Your task to perform on an android device: Open Reddit.com Image 0: 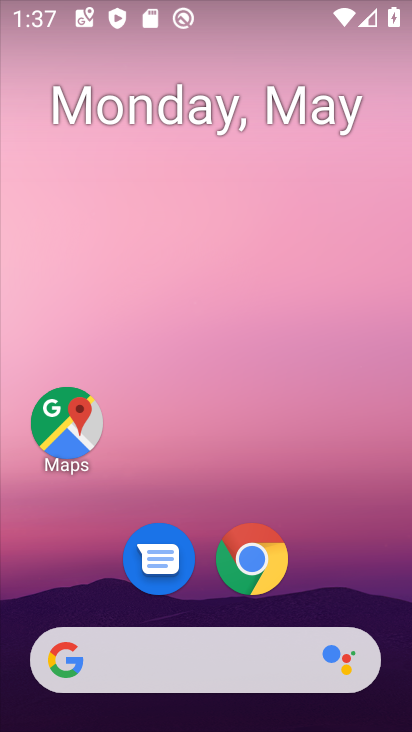
Step 0: type "Reddit.com"
Your task to perform on an android device: Open Reddit.com Image 1: 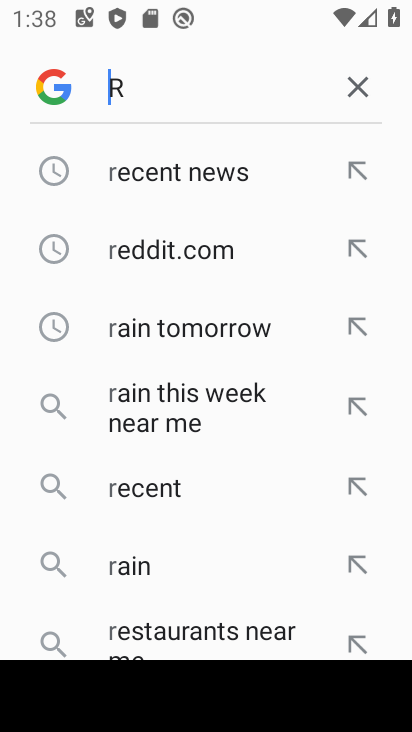
Step 1: click (360, 86)
Your task to perform on an android device: Open Reddit.com Image 2: 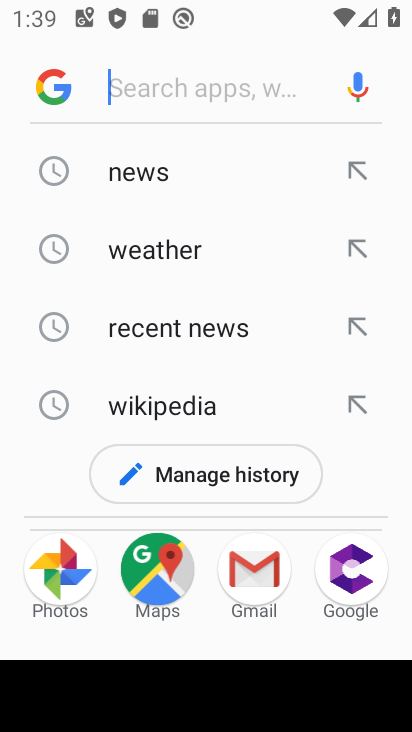
Step 2: type "Reddit.com"
Your task to perform on an android device: Open Reddit.com Image 3: 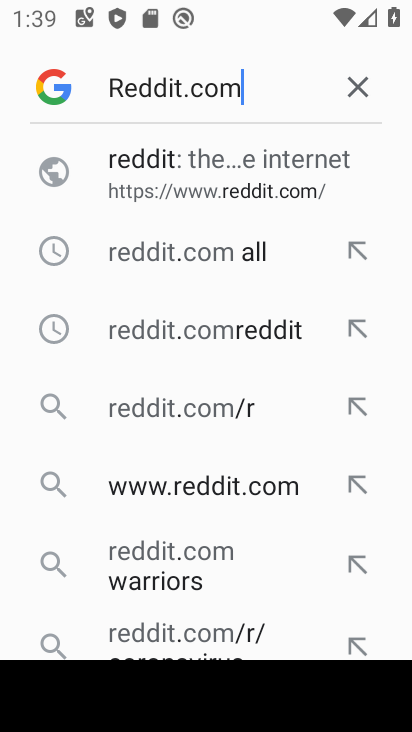
Step 3: click (150, 91)
Your task to perform on an android device: Open Reddit.com Image 4: 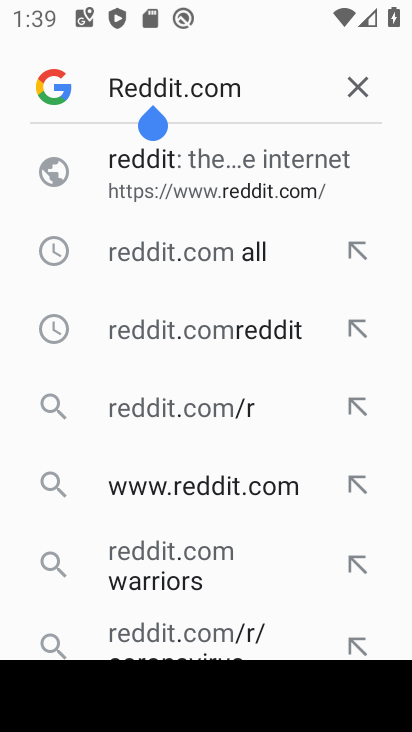
Step 4: click (173, 192)
Your task to perform on an android device: Open Reddit.com Image 5: 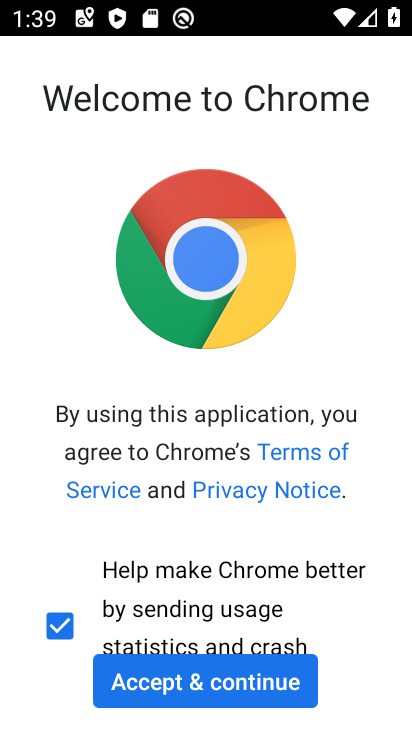
Step 5: click (177, 694)
Your task to perform on an android device: Open Reddit.com Image 6: 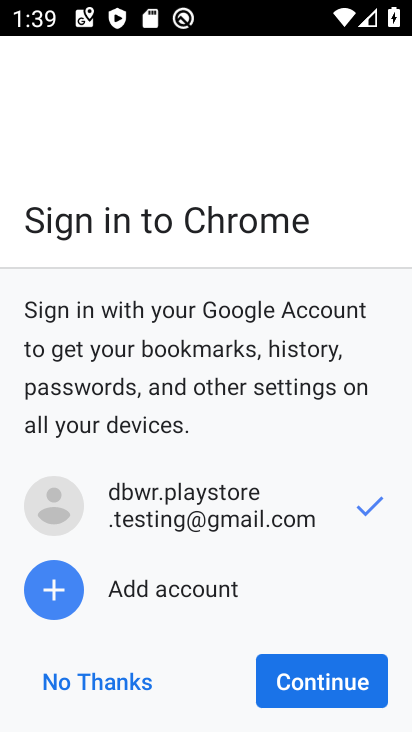
Step 6: click (174, 676)
Your task to perform on an android device: Open Reddit.com Image 7: 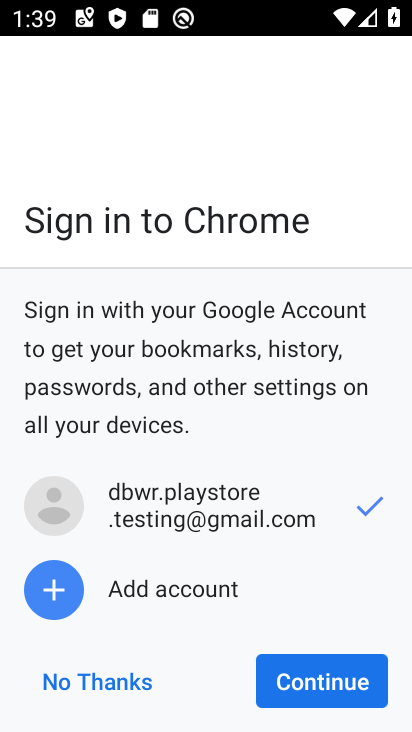
Step 7: click (272, 691)
Your task to perform on an android device: Open Reddit.com Image 8: 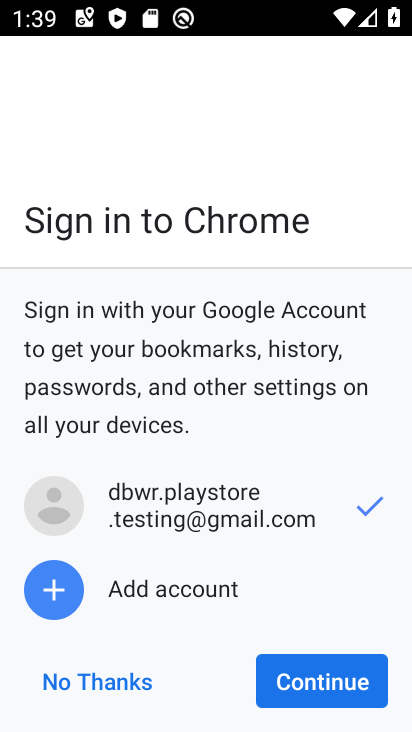
Step 8: click (272, 691)
Your task to perform on an android device: Open Reddit.com Image 9: 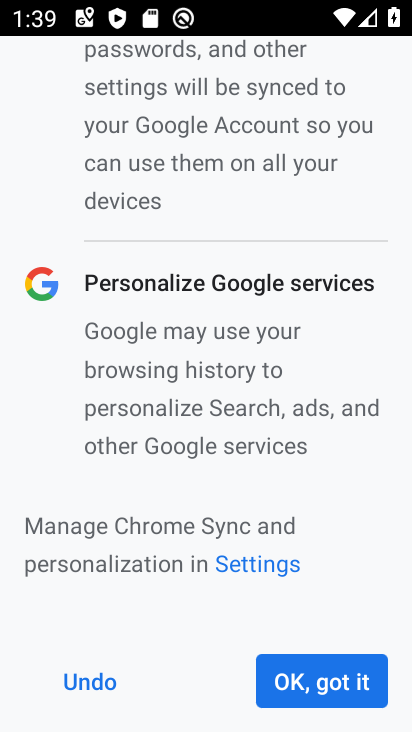
Step 9: click (272, 691)
Your task to perform on an android device: Open Reddit.com Image 10: 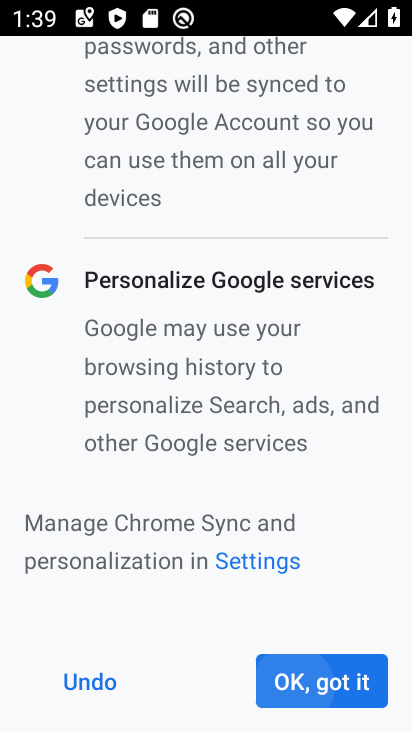
Step 10: click (272, 691)
Your task to perform on an android device: Open Reddit.com Image 11: 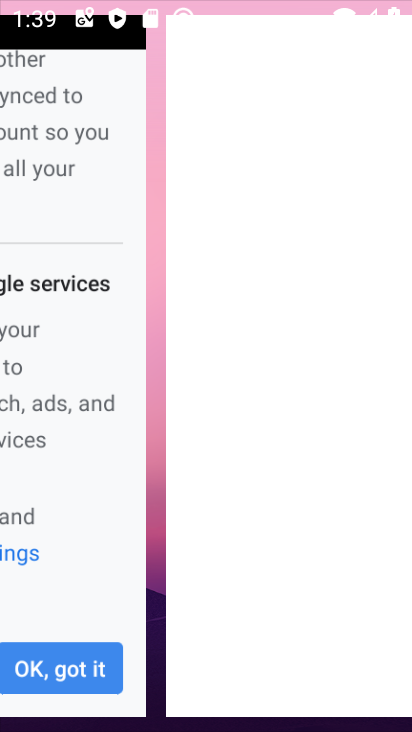
Step 11: click (272, 691)
Your task to perform on an android device: Open Reddit.com Image 12: 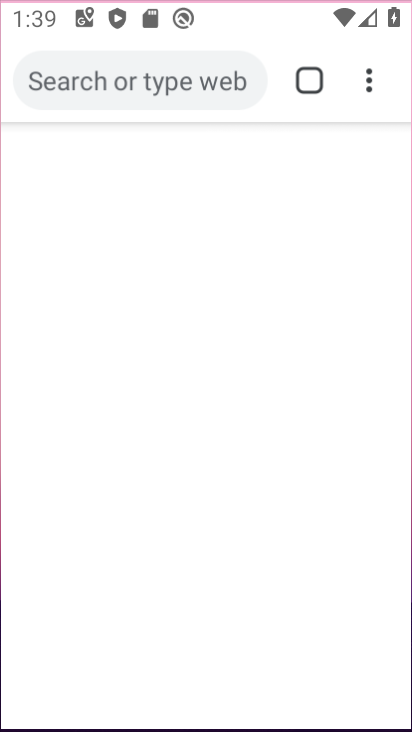
Step 12: click (272, 691)
Your task to perform on an android device: Open Reddit.com Image 13: 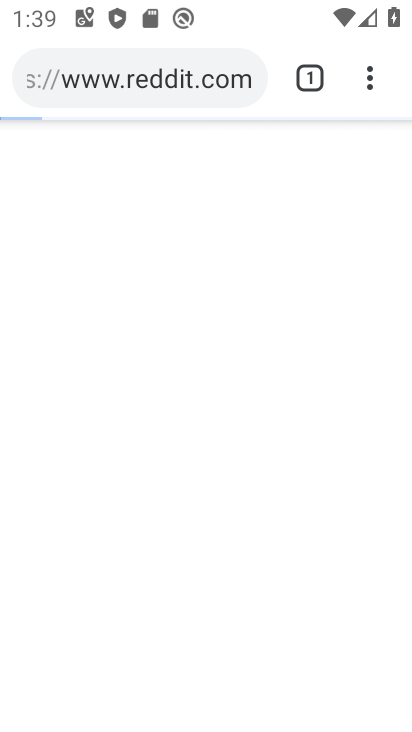
Step 13: click (272, 691)
Your task to perform on an android device: Open Reddit.com Image 14: 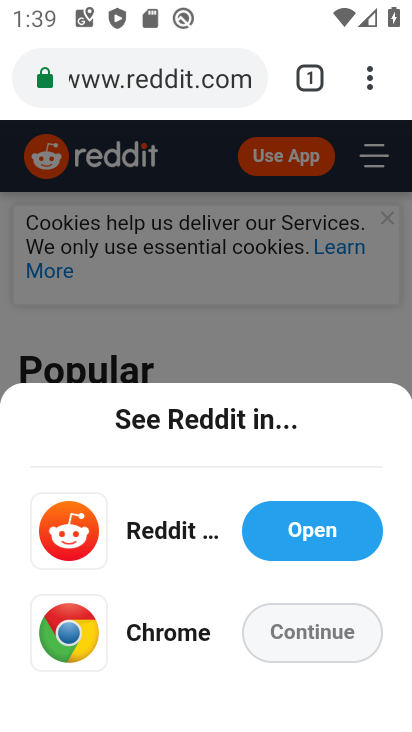
Step 14: task complete